Your task to perform on an android device: choose inbox layout in the gmail app Image 0: 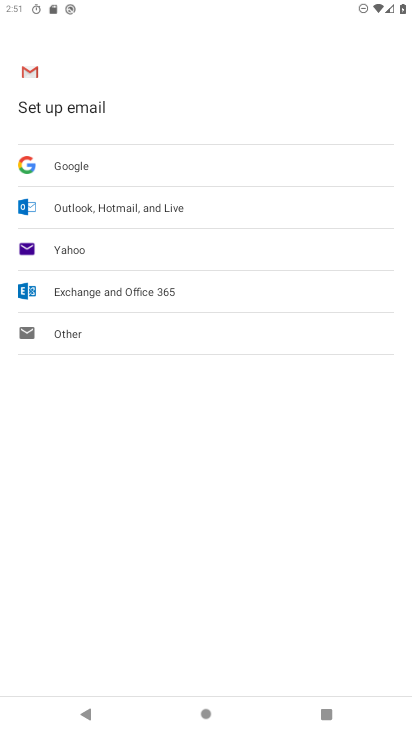
Step 0: press home button
Your task to perform on an android device: choose inbox layout in the gmail app Image 1: 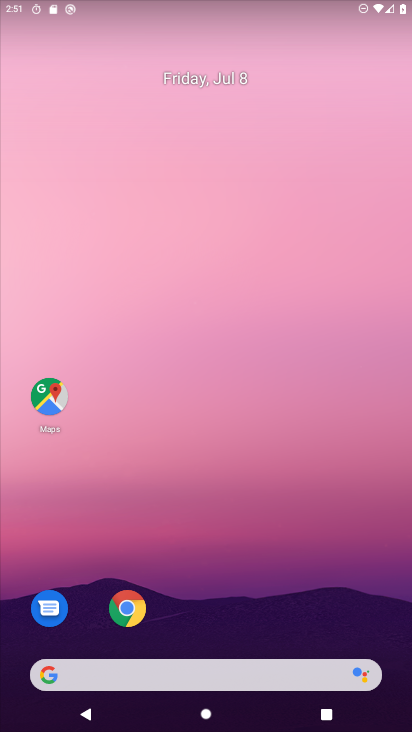
Step 1: drag from (239, 719) to (240, 14)
Your task to perform on an android device: choose inbox layout in the gmail app Image 2: 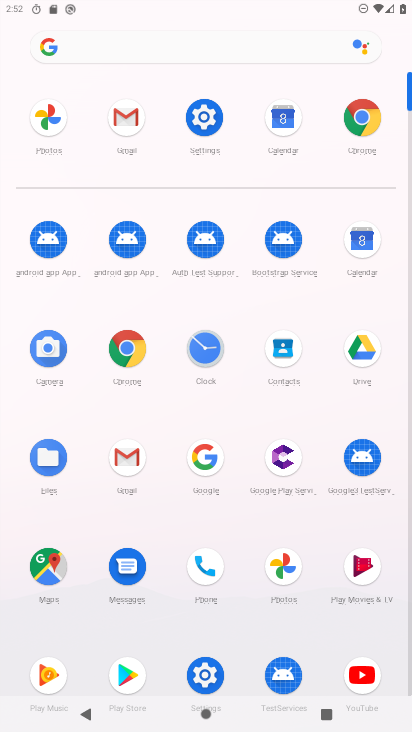
Step 2: click (131, 459)
Your task to perform on an android device: choose inbox layout in the gmail app Image 3: 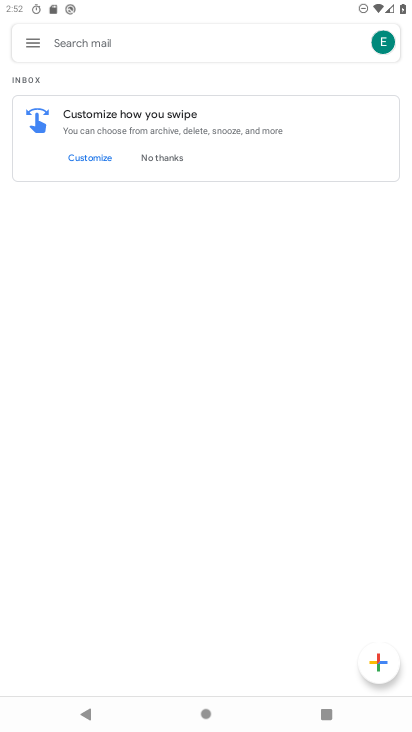
Step 3: click (31, 36)
Your task to perform on an android device: choose inbox layout in the gmail app Image 4: 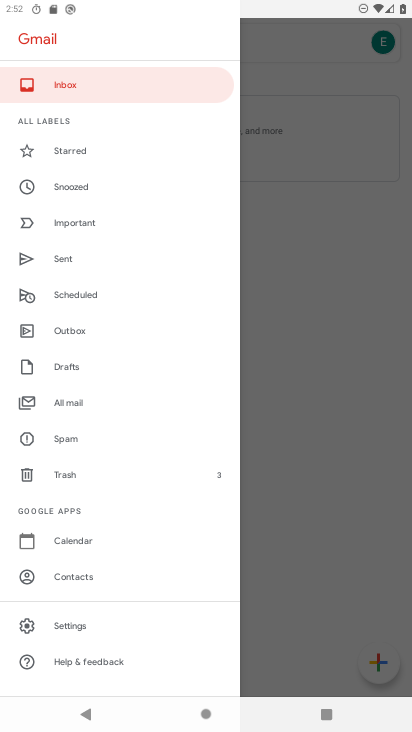
Step 4: click (80, 624)
Your task to perform on an android device: choose inbox layout in the gmail app Image 5: 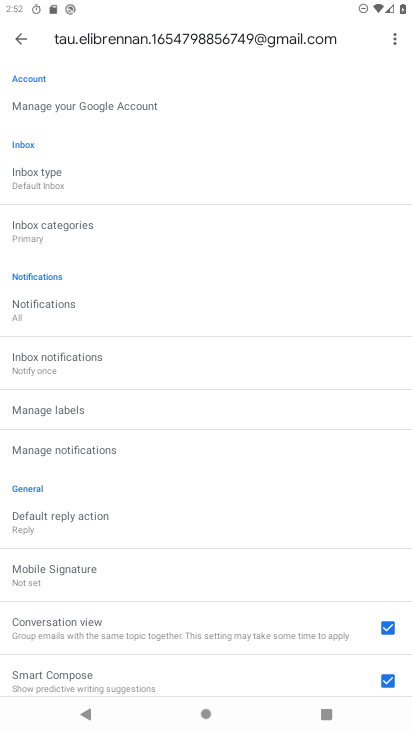
Step 5: click (45, 176)
Your task to perform on an android device: choose inbox layout in the gmail app Image 6: 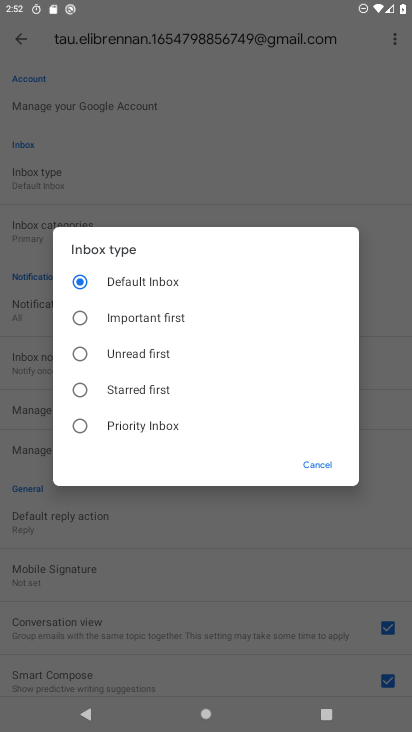
Step 6: click (85, 426)
Your task to perform on an android device: choose inbox layout in the gmail app Image 7: 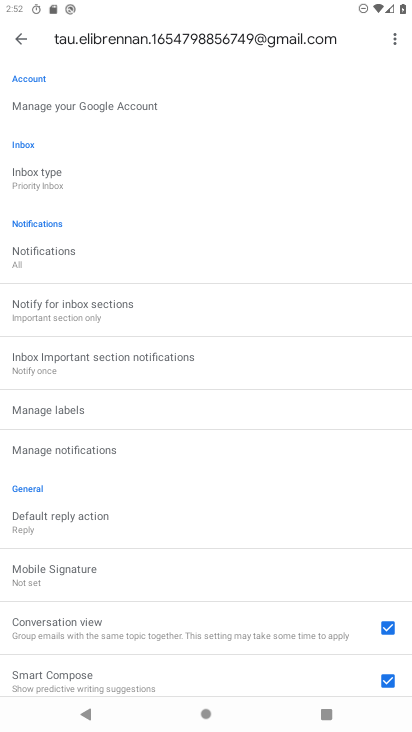
Step 7: task complete